Your task to perform on an android device: Search for sushi restaurants on Maps Image 0: 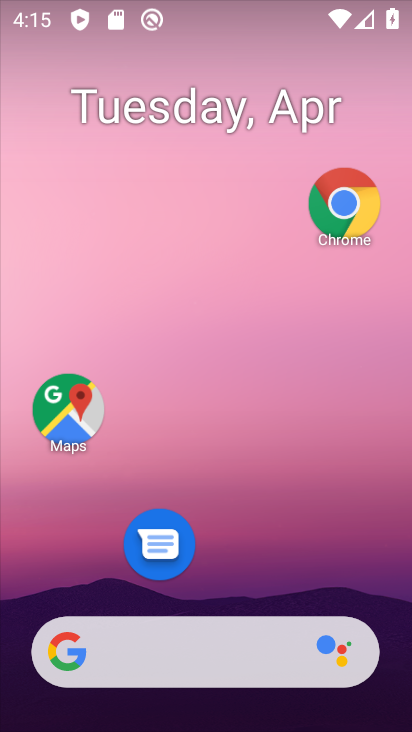
Step 0: click (85, 416)
Your task to perform on an android device: Search for sushi restaurants on Maps Image 1: 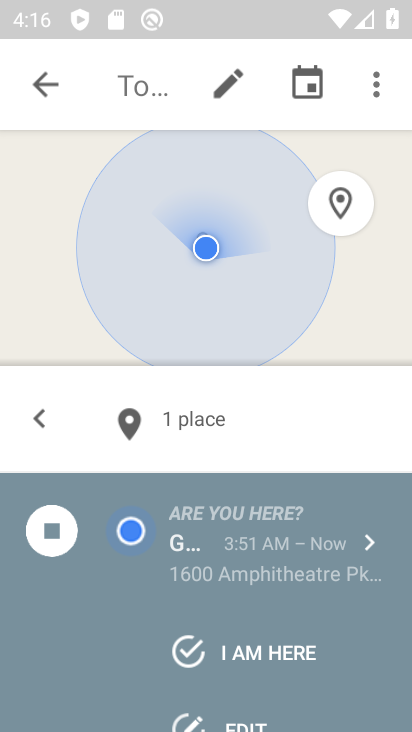
Step 1: click (31, 91)
Your task to perform on an android device: Search for sushi restaurants on Maps Image 2: 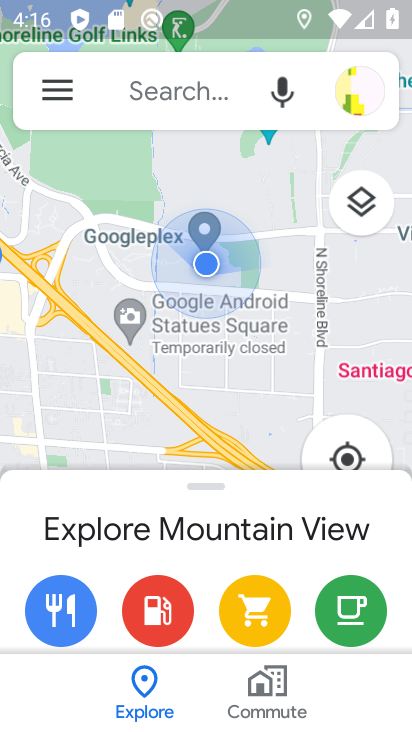
Step 2: click (164, 88)
Your task to perform on an android device: Search for sushi restaurants on Maps Image 3: 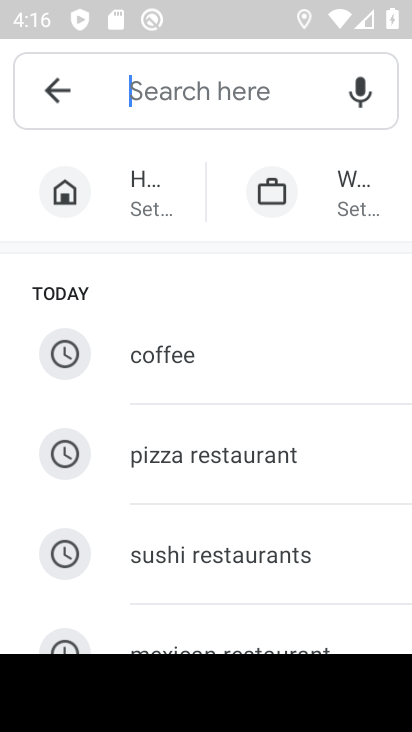
Step 3: type "sushi restaurants"
Your task to perform on an android device: Search for sushi restaurants on Maps Image 4: 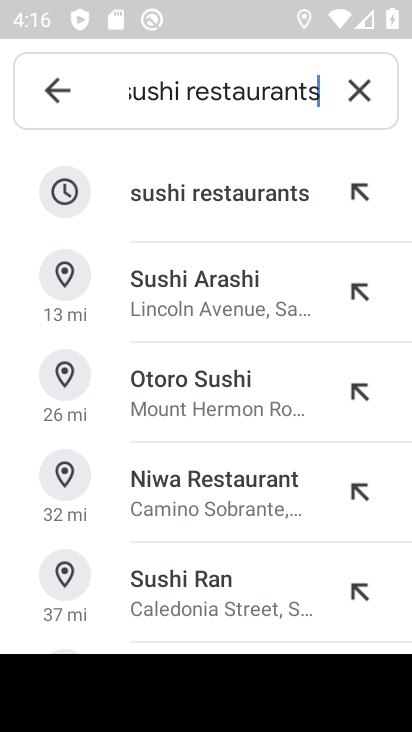
Step 4: click (210, 222)
Your task to perform on an android device: Search for sushi restaurants on Maps Image 5: 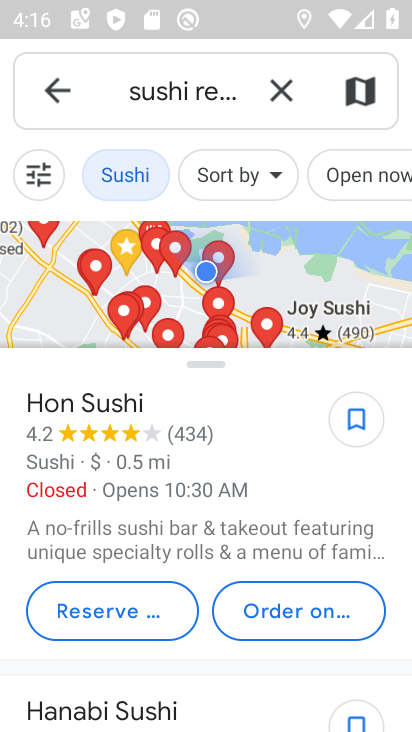
Step 5: task complete